Your task to perform on an android device: show emergency info Image 0: 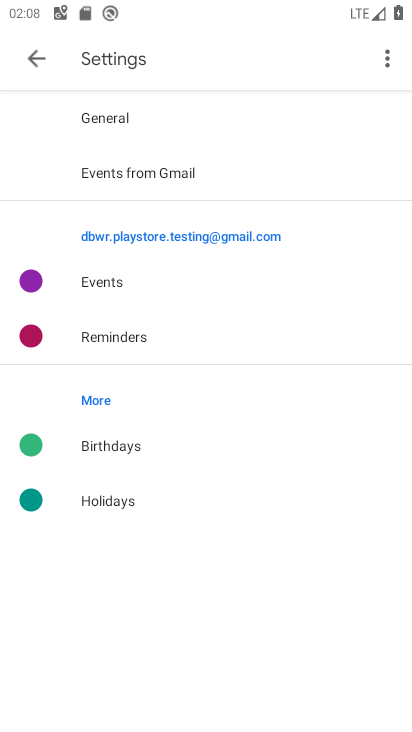
Step 0: press home button
Your task to perform on an android device: show emergency info Image 1: 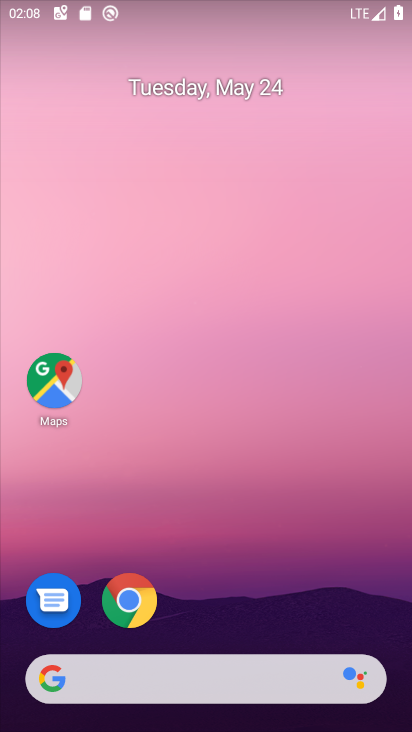
Step 1: drag from (249, 555) to (187, 320)
Your task to perform on an android device: show emergency info Image 2: 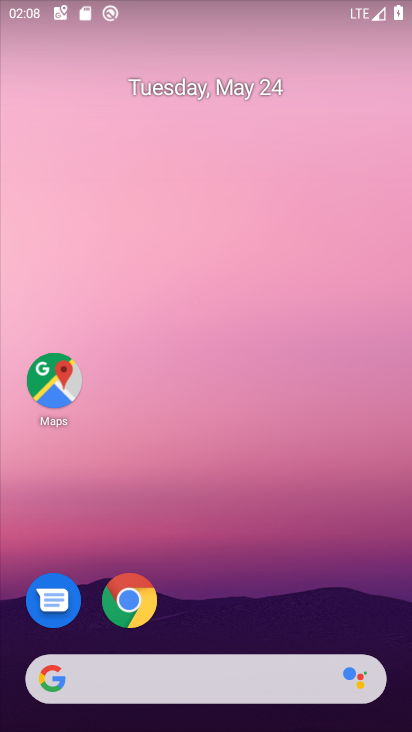
Step 2: drag from (296, 451) to (229, 165)
Your task to perform on an android device: show emergency info Image 3: 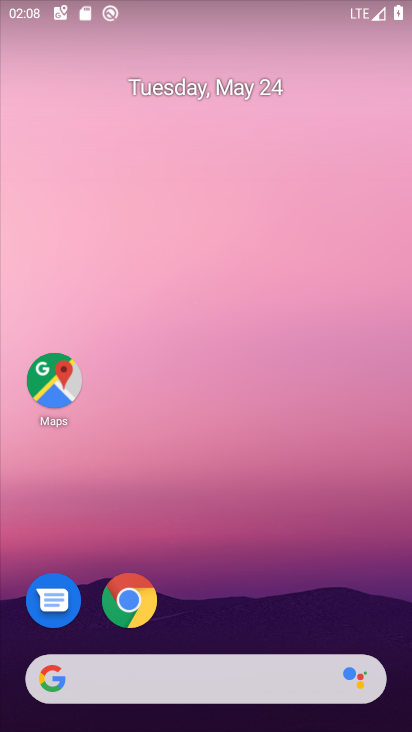
Step 3: drag from (248, 546) to (187, 2)
Your task to perform on an android device: show emergency info Image 4: 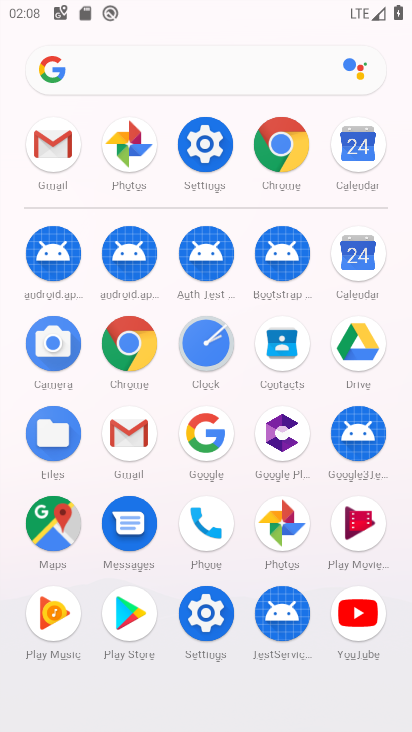
Step 4: click (198, 159)
Your task to perform on an android device: show emergency info Image 5: 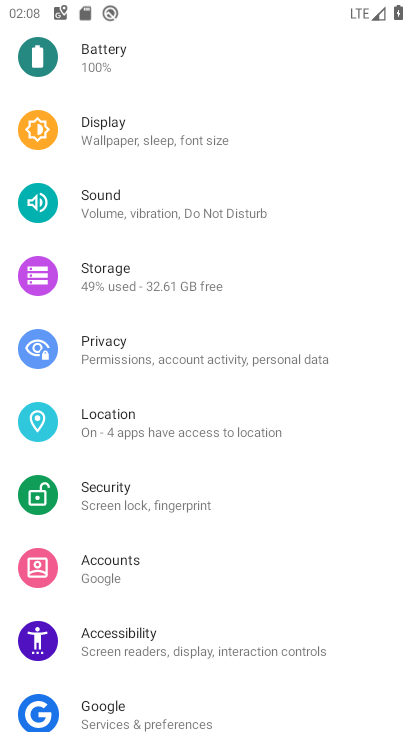
Step 5: drag from (195, 600) to (152, 224)
Your task to perform on an android device: show emergency info Image 6: 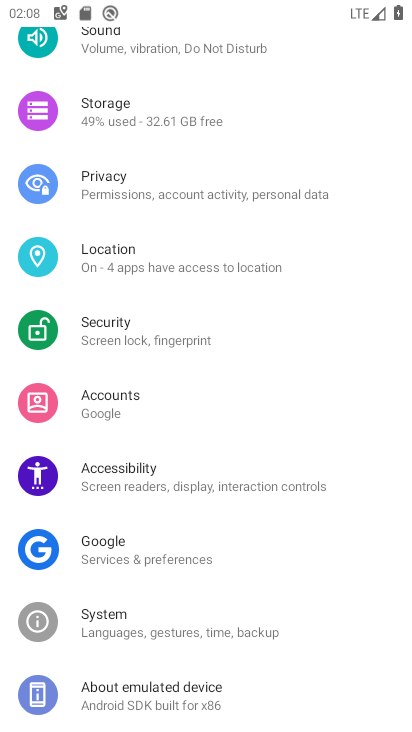
Step 6: click (186, 678)
Your task to perform on an android device: show emergency info Image 7: 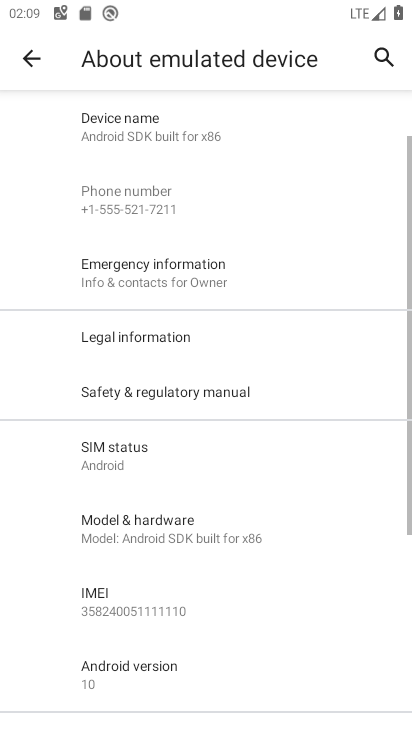
Step 7: drag from (164, 549) to (155, 244)
Your task to perform on an android device: show emergency info Image 8: 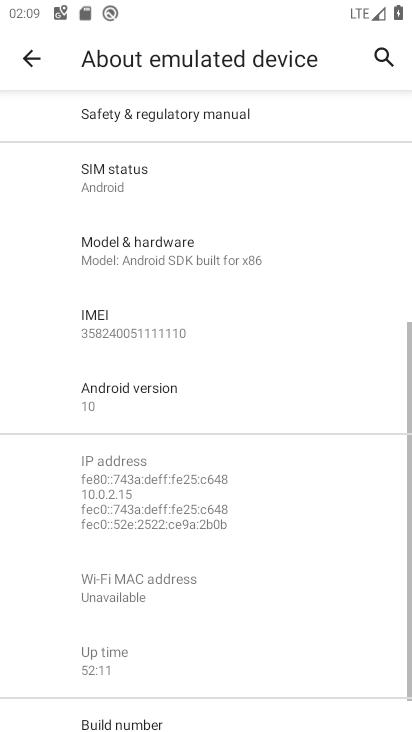
Step 8: drag from (186, 526) to (147, 194)
Your task to perform on an android device: show emergency info Image 9: 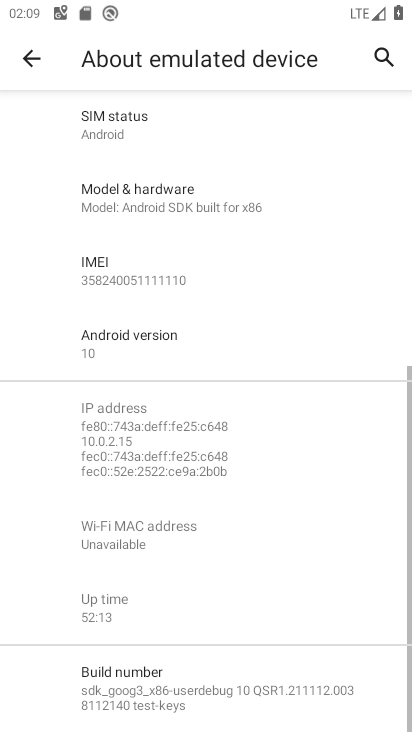
Step 9: drag from (238, 273) to (204, 731)
Your task to perform on an android device: show emergency info Image 10: 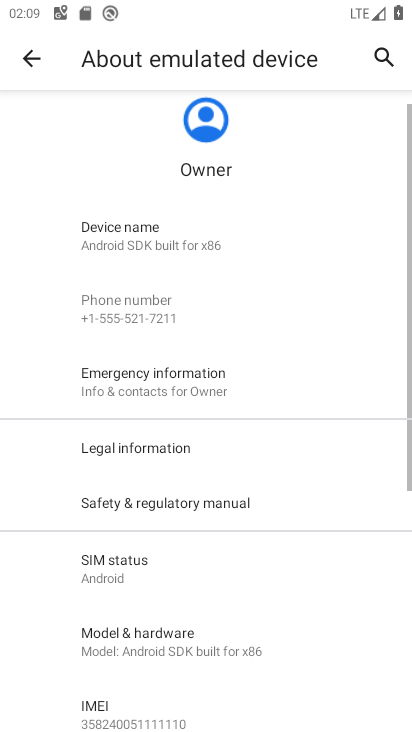
Step 10: drag from (149, 586) to (143, 246)
Your task to perform on an android device: show emergency info Image 11: 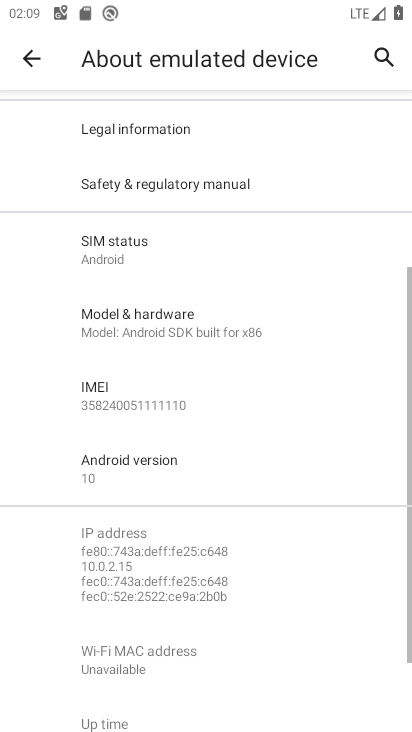
Step 11: drag from (169, 201) to (146, 609)
Your task to perform on an android device: show emergency info Image 12: 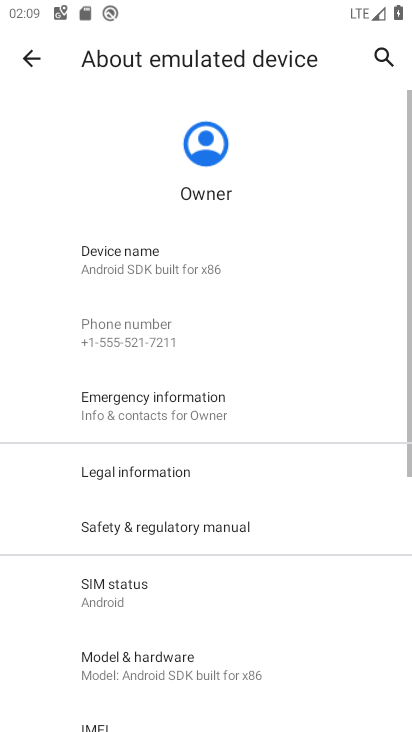
Step 12: click (167, 401)
Your task to perform on an android device: show emergency info Image 13: 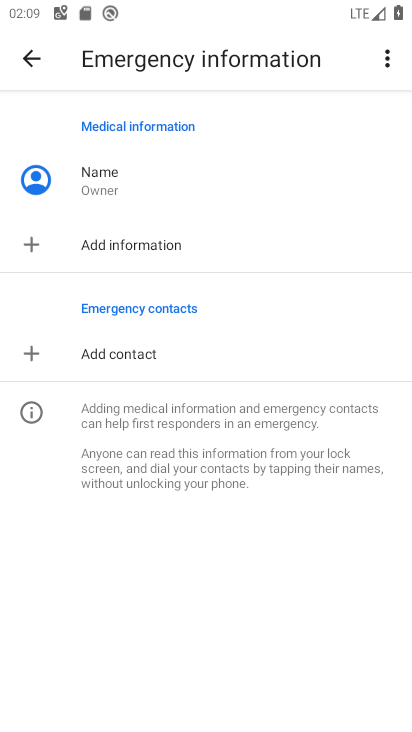
Step 13: task complete